Your task to perform on an android device: change text size in settings app Image 0: 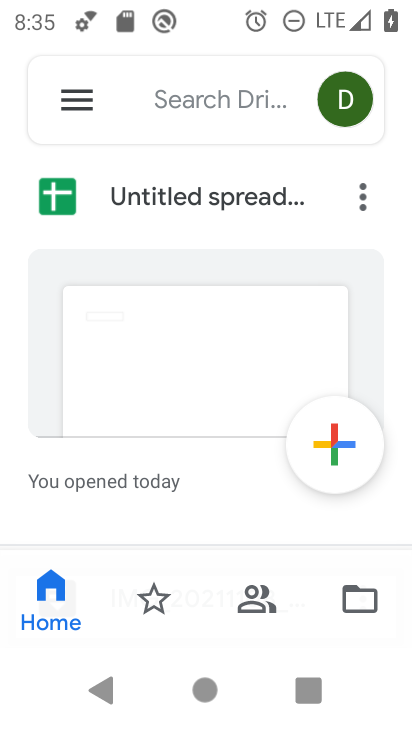
Step 0: press home button
Your task to perform on an android device: change text size in settings app Image 1: 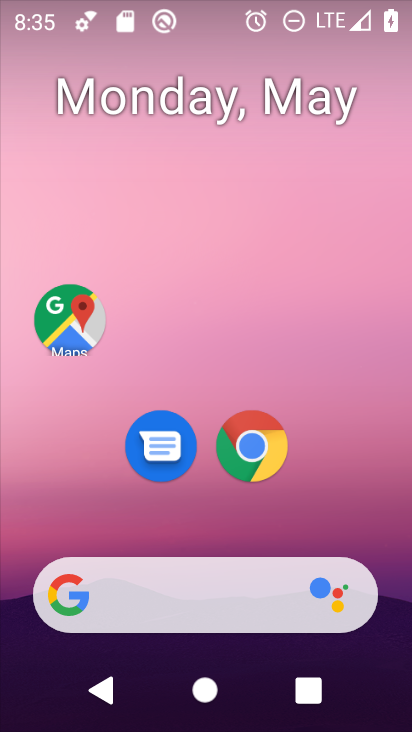
Step 1: drag from (335, 487) to (239, 186)
Your task to perform on an android device: change text size in settings app Image 2: 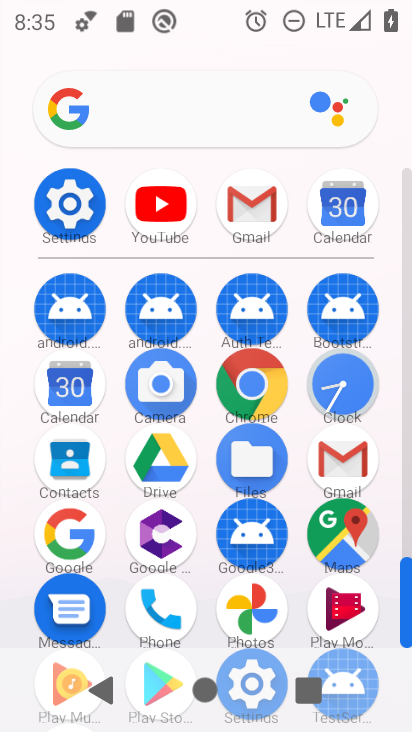
Step 2: click (67, 202)
Your task to perform on an android device: change text size in settings app Image 3: 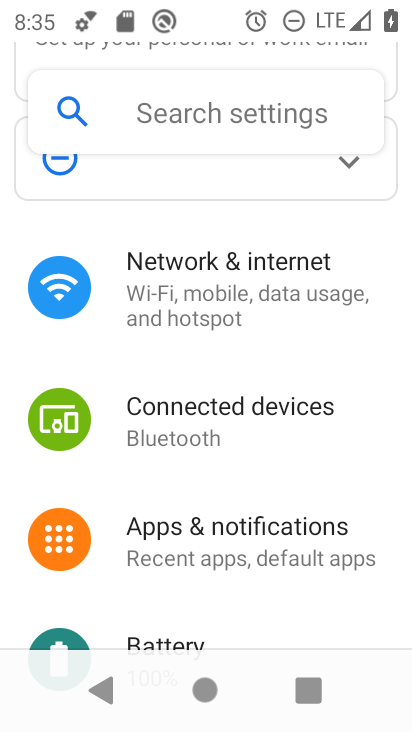
Step 3: drag from (234, 474) to (171, 289)
Your task to perform on an android device: change text size in settings app Image 4: 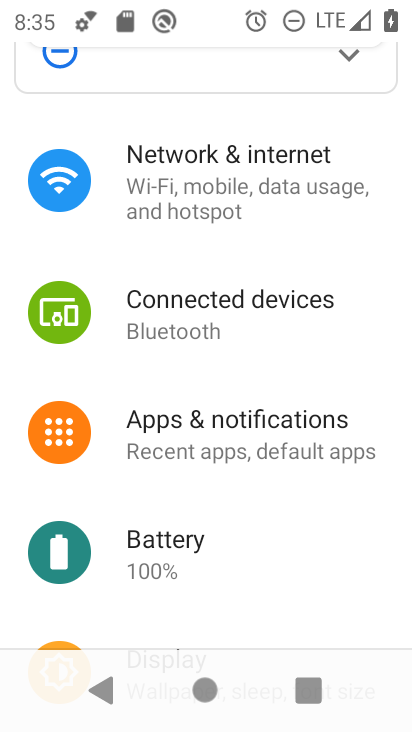
Step 4: drag from (231, 487) to (191, 289)
Your task to perform on an android device: change text size in settings app Image 5: 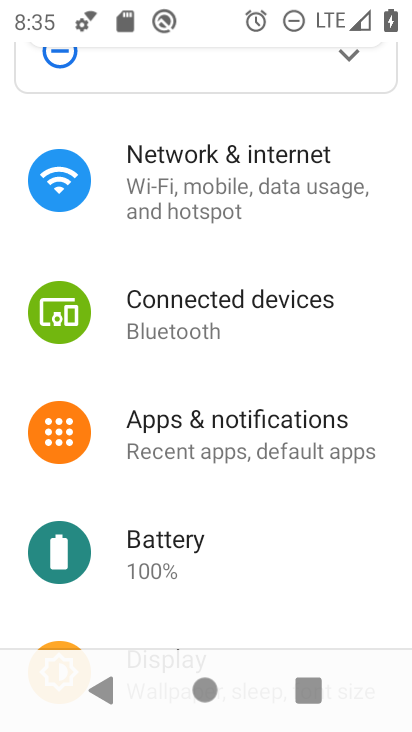
Step 5: drag from (205, 497) to (202, 241)
Your task to perform on an android device: change text size in settings app Image 6: 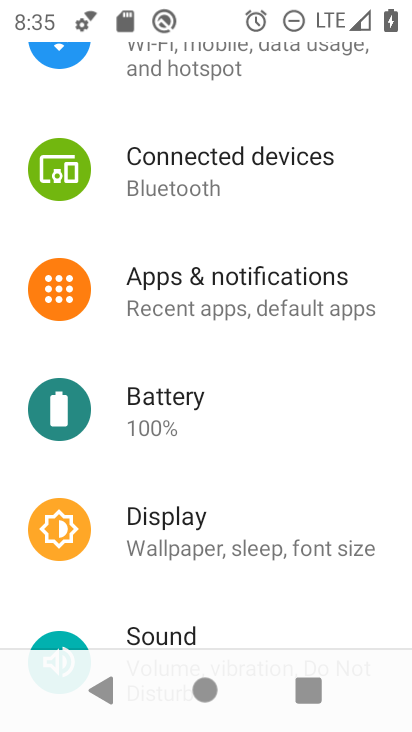
Step 6: click (161, 529)
Your task to perform on an android device: change text size in settings app Image 7: 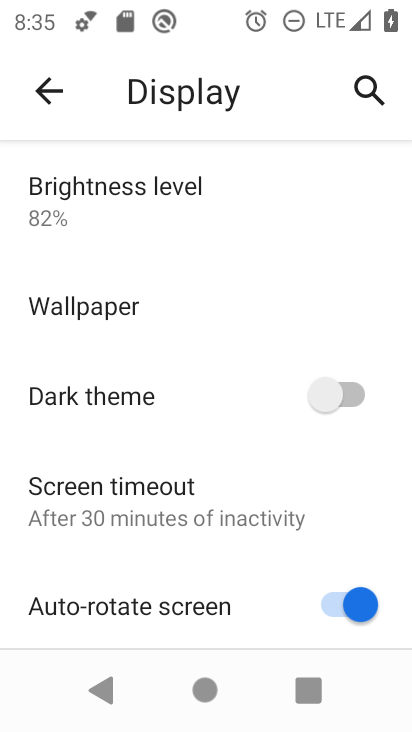
Step 7: drag from (218, 461) to (108, 227)
Your task to perform on an android device: change text size in settings app Image 8: 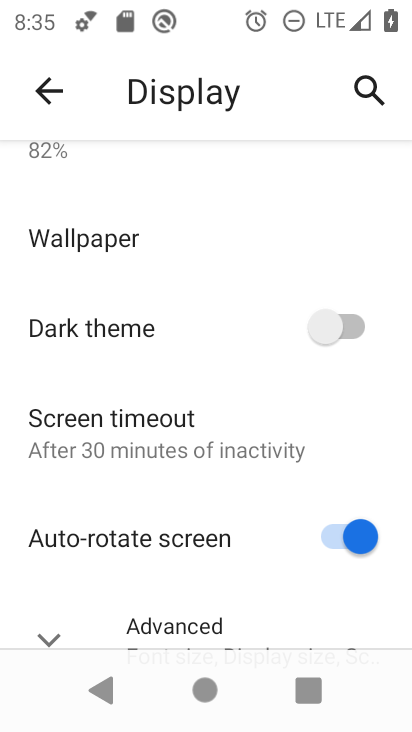
Step 8: drag from (163, 468) to (138, 184)
Your task to perform on an android device: change text size in settings app Image 9: 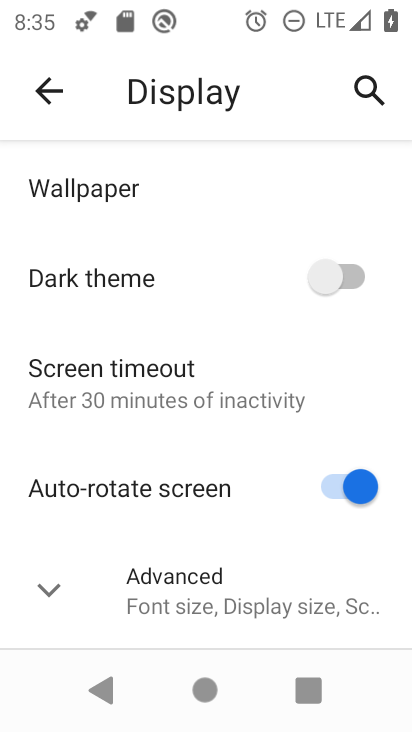
Step 9: click (85, 603)
Your task to perform on an android device: change text size in settings app Image 10: 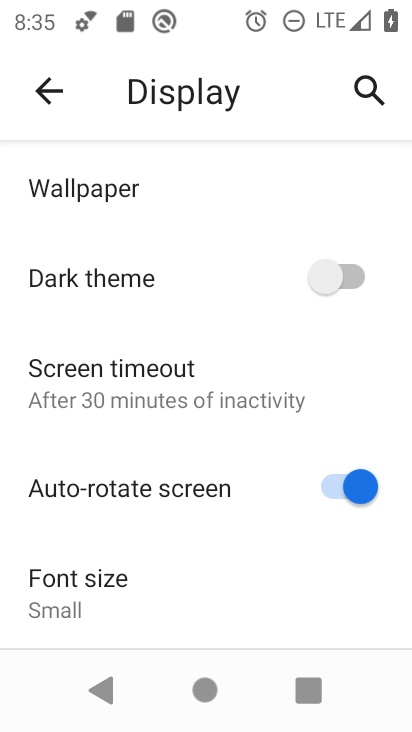
Step 10: click (92, 577)
Your task to perform on an android device: change text size in settings app Image 11: 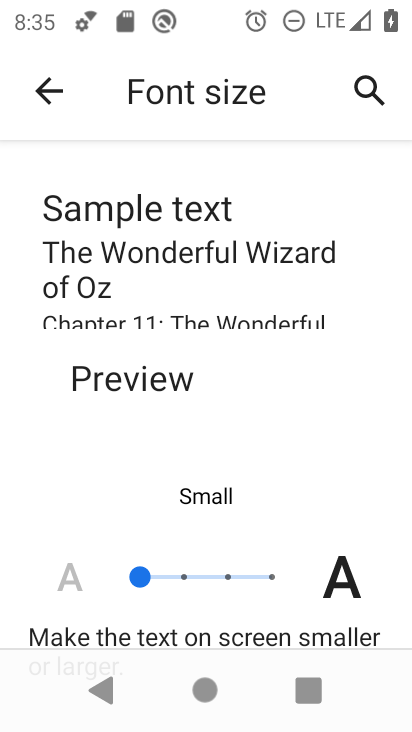
Step 11: click (182, 574)
Your task to perform on an android device: change text size in settings app Image 12: 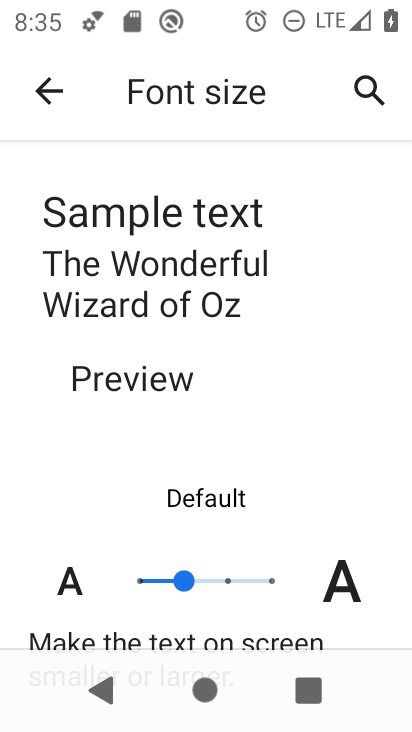
Step 12: task complete